Your task to perform on an android device: Do I have any events this weekend? Image 0: 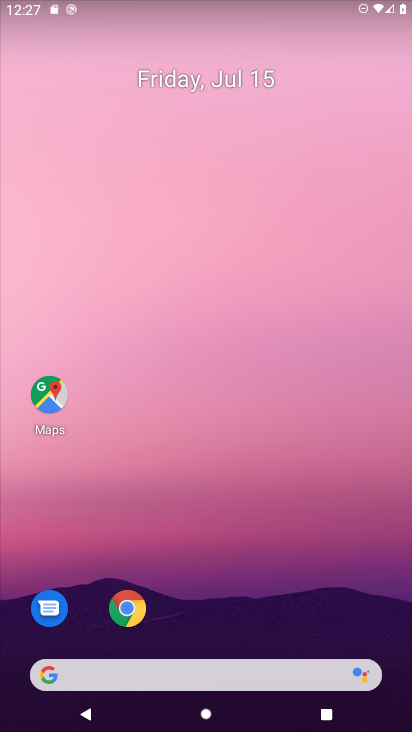
Step 0: drag from (222, 693) to (291, 57)
Your task to perform on an android device: Do I have any events this weekend? Image 1: 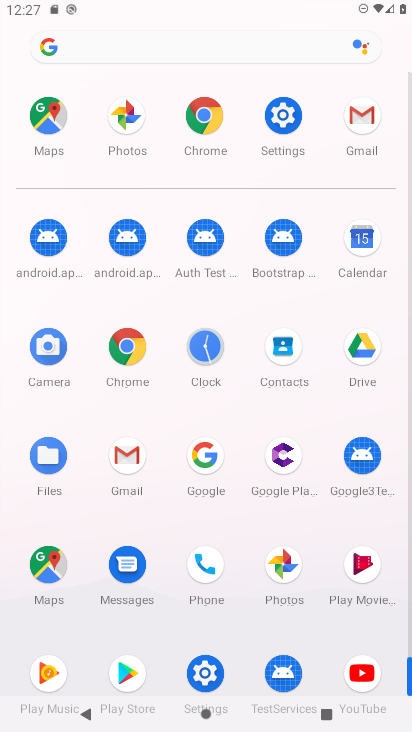
Step 1: click (373, 235)
Your task to perform on an android device: Do I have any events this weekend? Image 2: 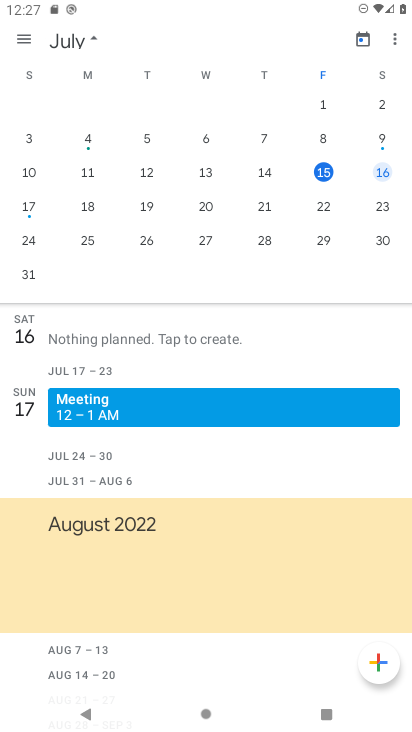
Step 2: click (381, 169)
Your task to perform on an android device: Do I have any events this weekend? Image 3: 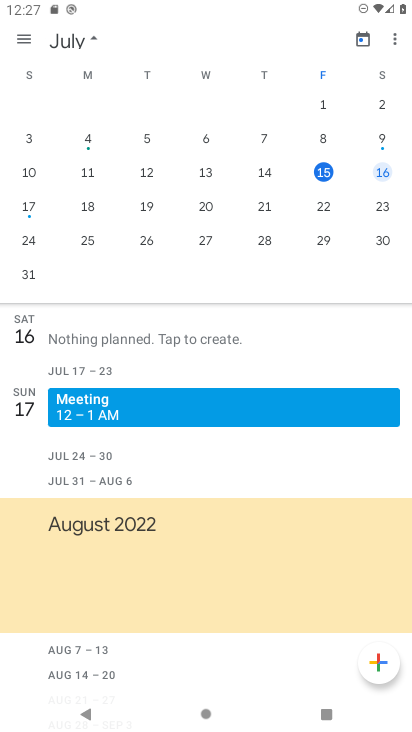
Step 3: task complete